Your task to perform on an android device: refresh tabs in the chrome app Image 0: 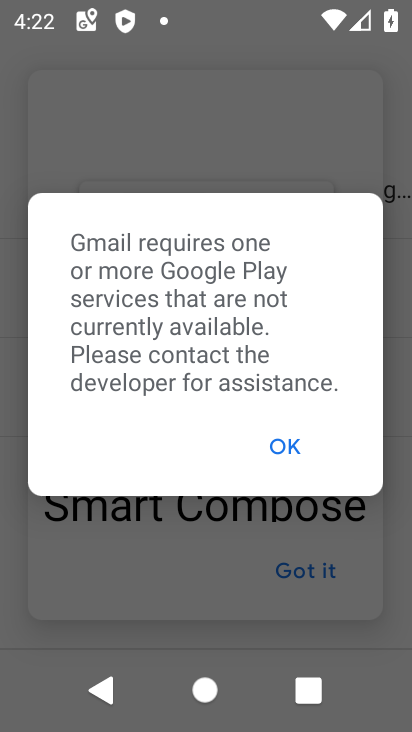
Step 0: press home button
Your task to perform on an android device: refresh tabs in the chrome app Image 1: 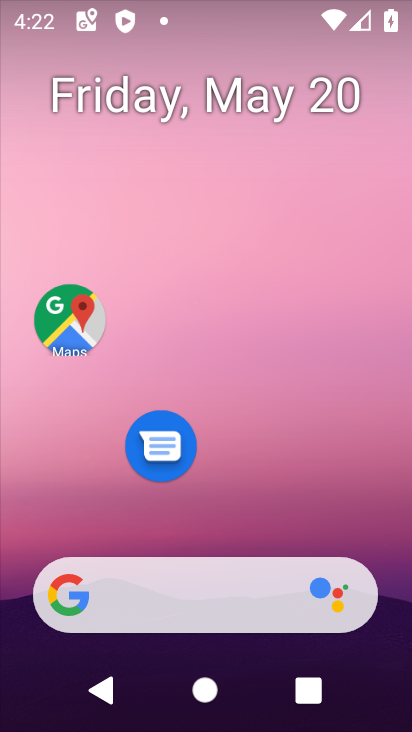
Step 1: drag from (207, 497) to (296, 10)
Your task to perform on an android device: refresh tabs in the chrome app Image 2: 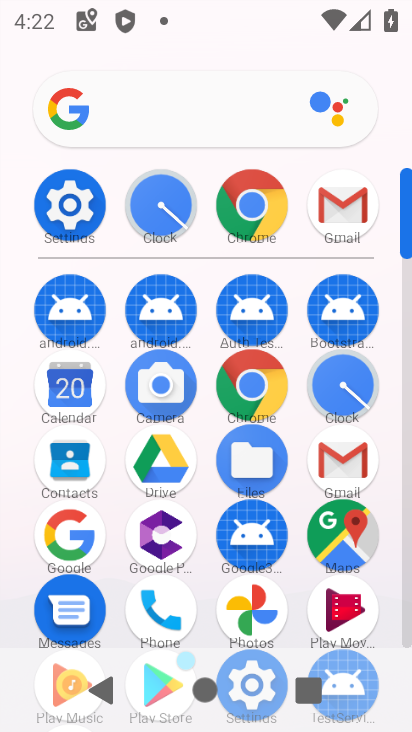
Step 2: click (264, 396)
Your task to perform on an android device: refresh tabs in the chrome app Image 3: 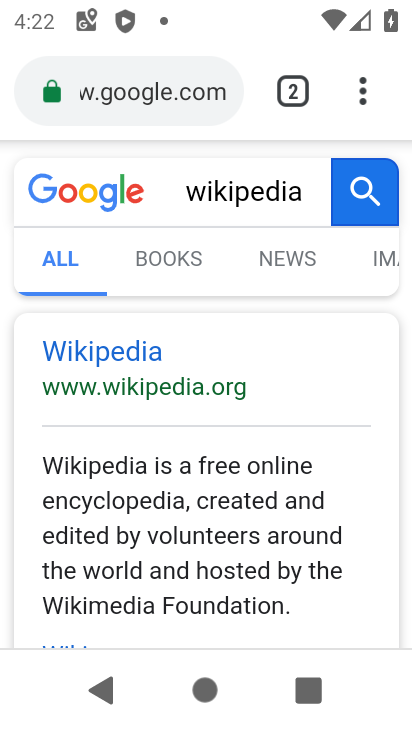
Step 3: click (360, 74)
Your task to perform on an android device: refresh tabs in the chrome app Image 4: 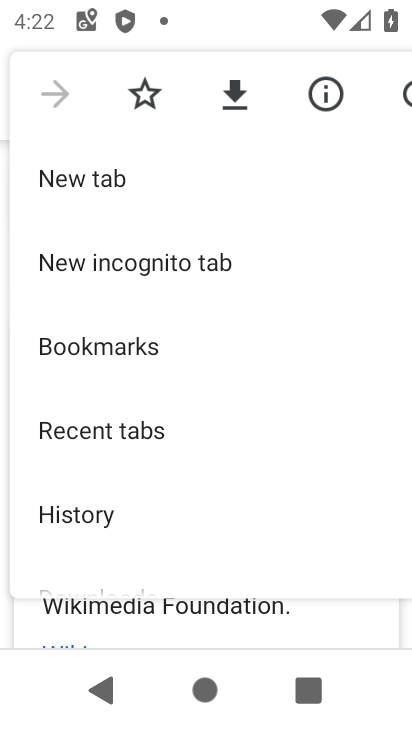
Step 4: click (401, 92)
Your task to perform on an android device: refresh tabs in the chrome app Image 5: 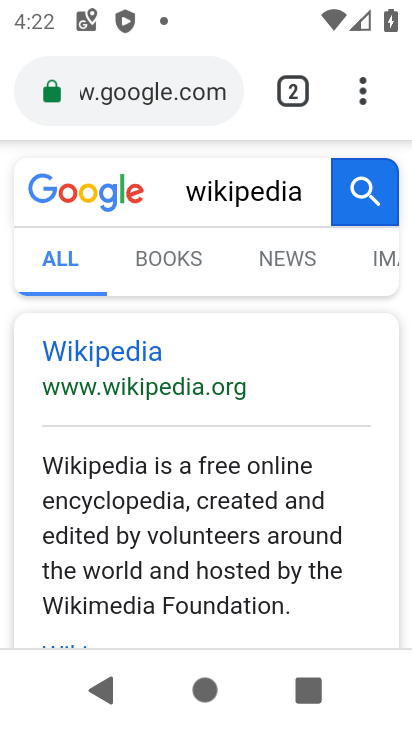
Step 5: task complete